Your task to perform on an android device: What is the news today? Image 0: 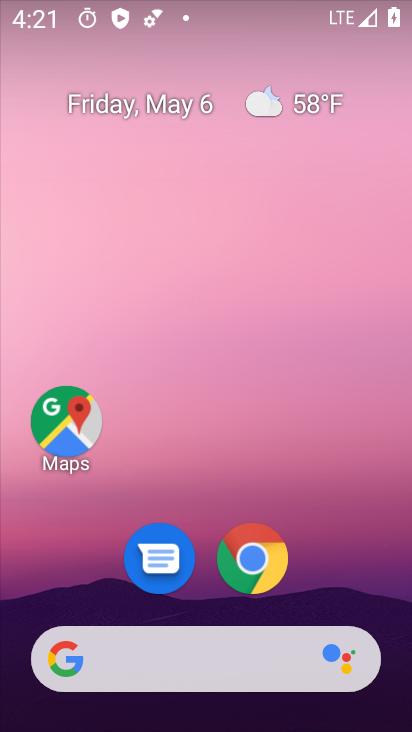
Step 0: drag from (292, 630) to (342, 0)
Your task to perform on an android device: What is the news today? Image 1: 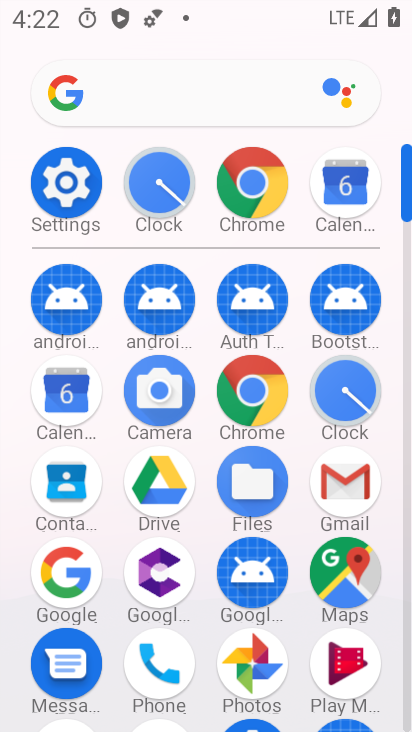
Step 1: click (249, 388)
Your task to perform on an android device: What is the news today? Image 2: 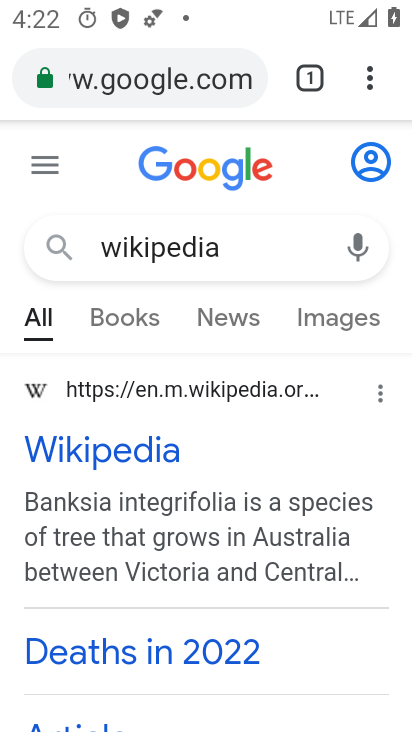
Step 2: click (212, 78)
Your task to perform on an android device: What is the news today? Image 3: 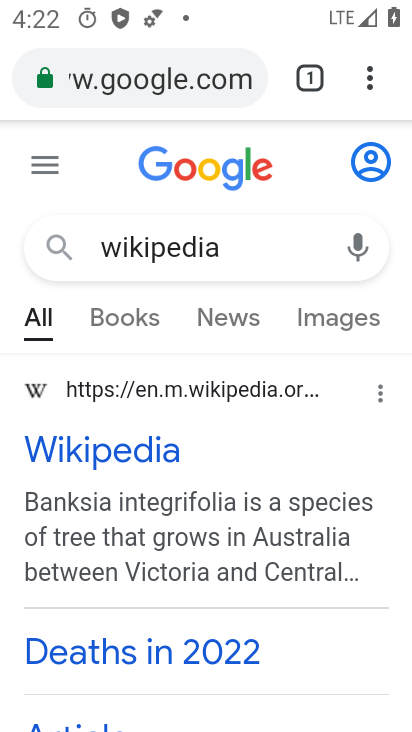
Step 3: click (212, 78)
Your task to perform on an android device: What is the news today? Image 4: 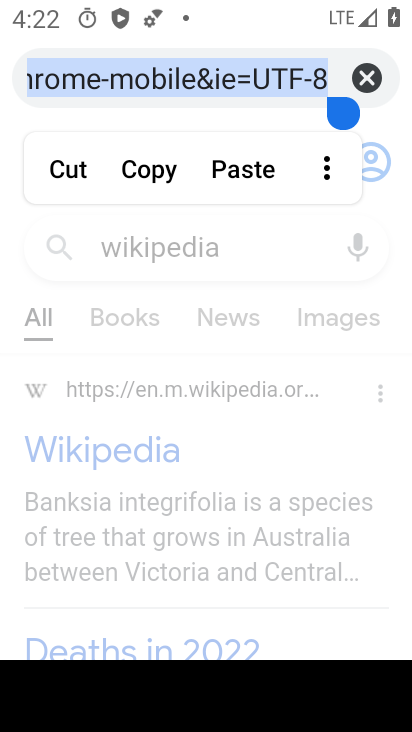
Step 4: click (356, 80)
Your task to perform on an android device: What is the news today? Image 5: 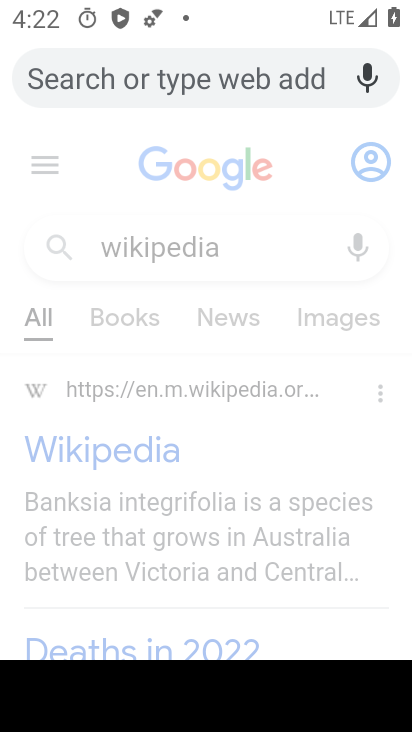
Step 5: type "news today"
Your task to perform on an android device: What is the news today? Image 6: 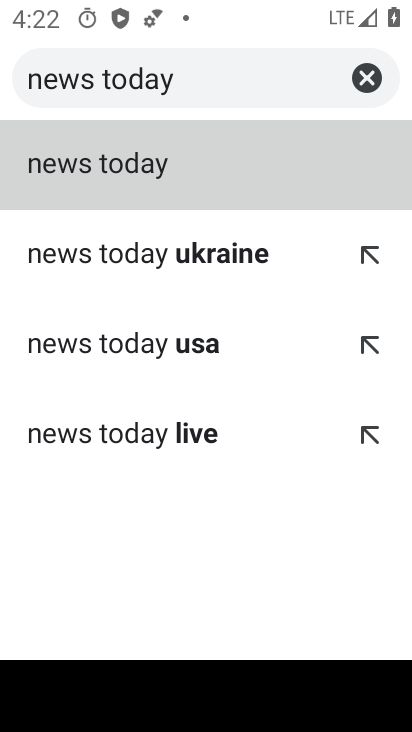
Step 6: click (211, 156)
Your task to perform on an android device: What is the news today? Image 7: 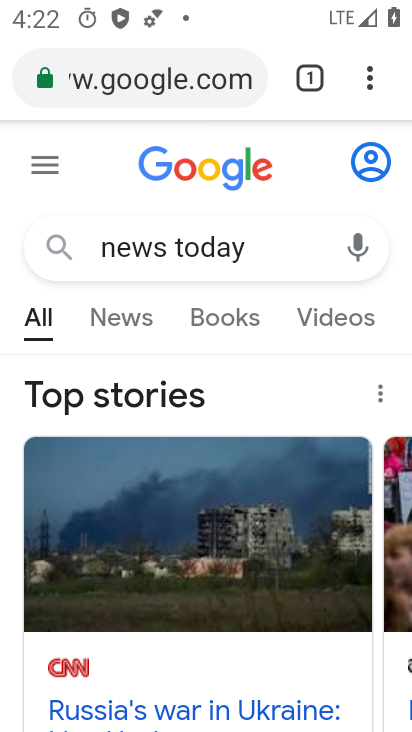
Step 7: task complete